Your task to perform on an android device: Open the calendar and show me this week's events? Image 0: 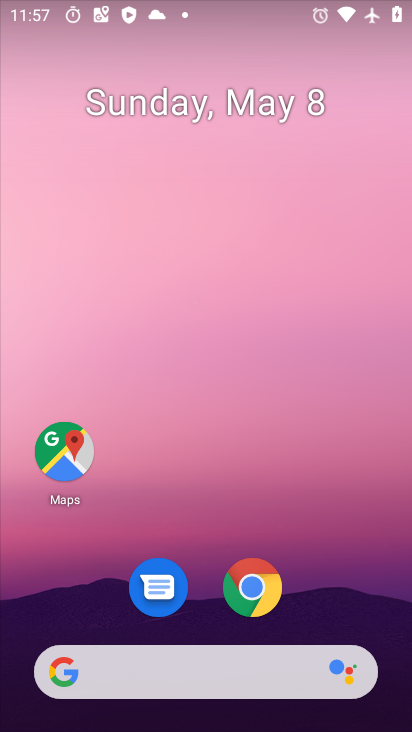
Step 0: drag from (368, 645) to (196, 183)
Your task to perform on an android device: Open the calendar and show me this week's events? Image 1: 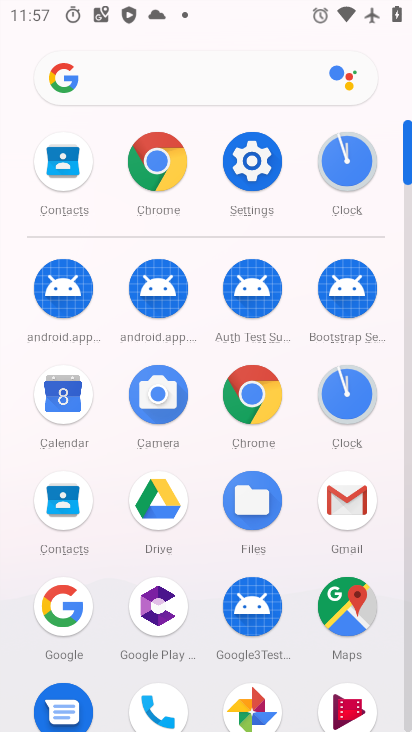
Step 1: click (72, 393)
Your task to perform on an android device: Open the calendar and show me this week's events? Image 2: 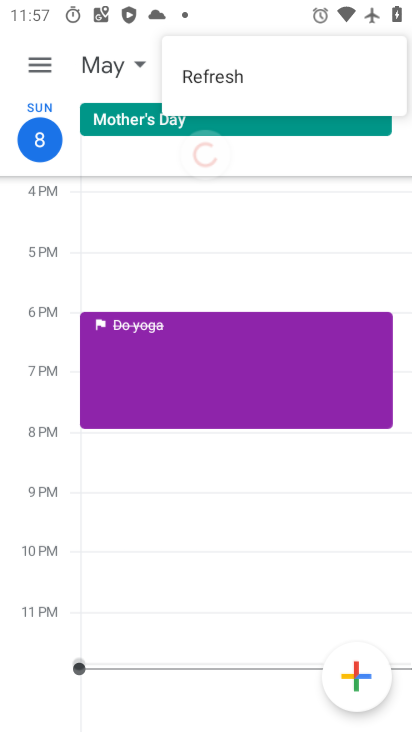
Step 2: click (72, 391)
Your task to perform on an android device: Open the calendar and show me this week's events? Image 3: 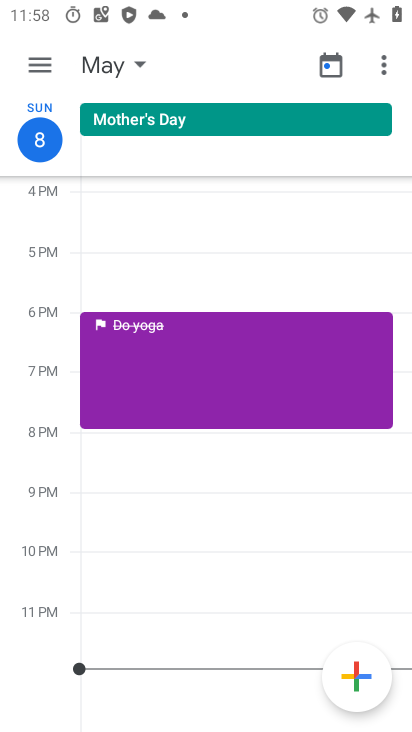
Step 3: click (133, 62)
Your task to perform on an android device: Open the calendar and show me this week's events? Image 4: 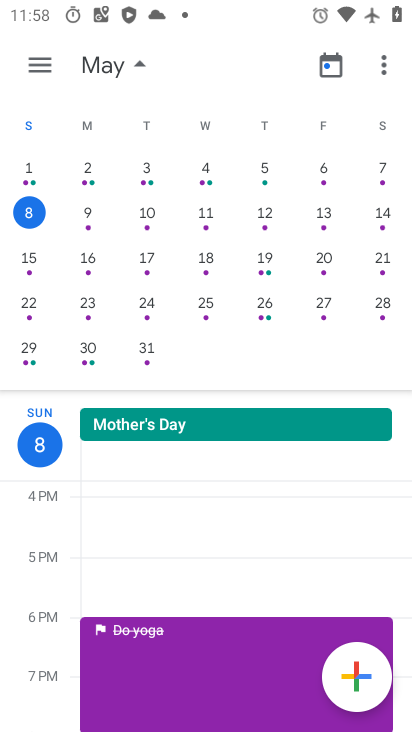
Step 4: click (320, 213)
Your task to perform on an android device: Open the calendar and show me this week's events? Image 5: 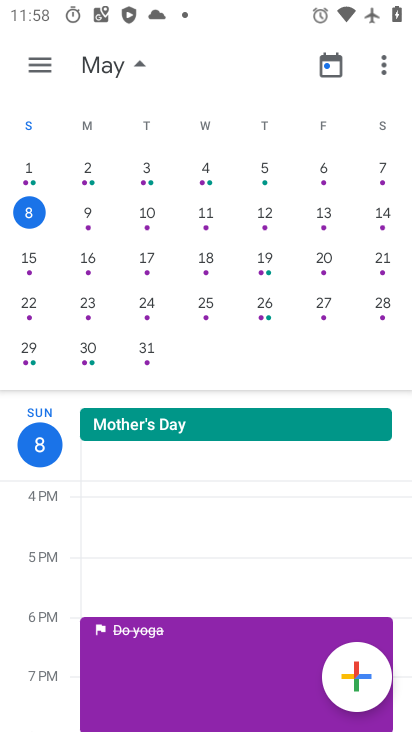
Step 5: click (320, 213)
Your task to perform on an android device: Open the calendar and show me this week's events? Image 6: 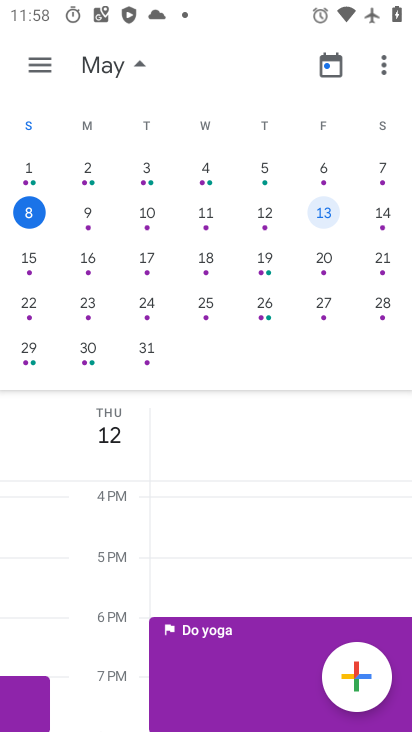
Step 6: click (320, 213)
Your task to perform on an android device: Open the calendar and show me this week's events? Image 7: 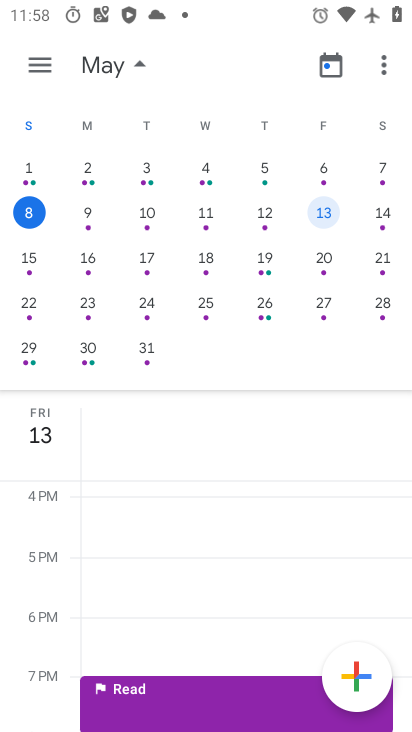
Step 7: task complete